Your task to perform on an android device: see tabs open on other devices in the chrome app Image 0: 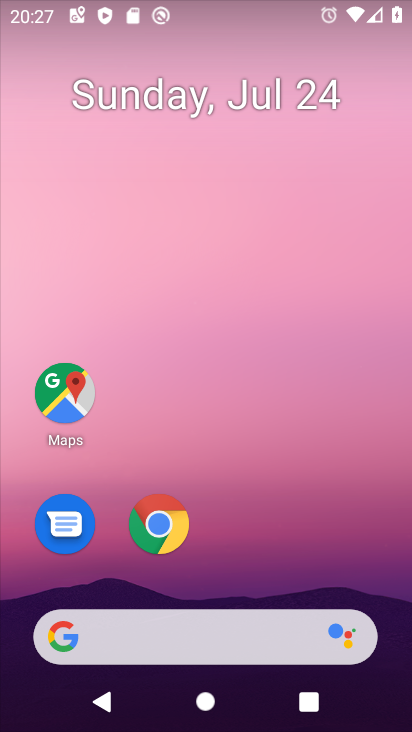
Step 0: drag from (254, 561) to (241, 524)
Your task to perform on an android device: see tabs open on other devices in the chrome app Image 1: 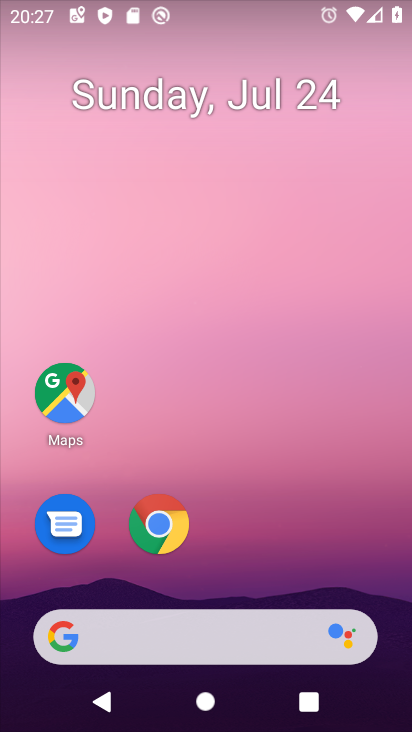
Step 1: click (172, 532)
Your task to perform on an android device: see tabs open on other devices in the chrome app Image 2: 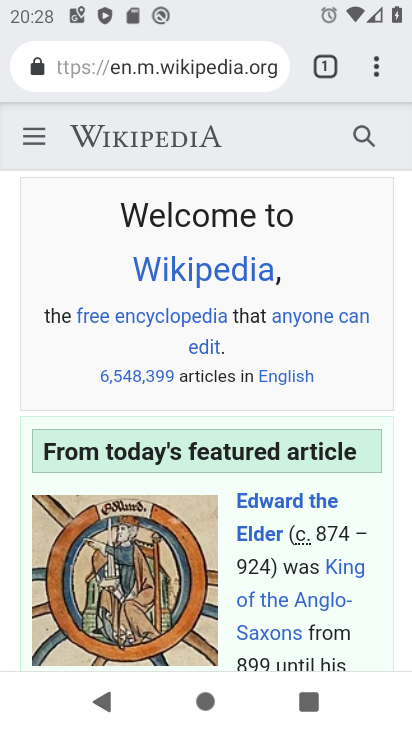
Step 2: press back button
Your task to perform on an android device: see tabs open on other devices in the chrome app Image 3: 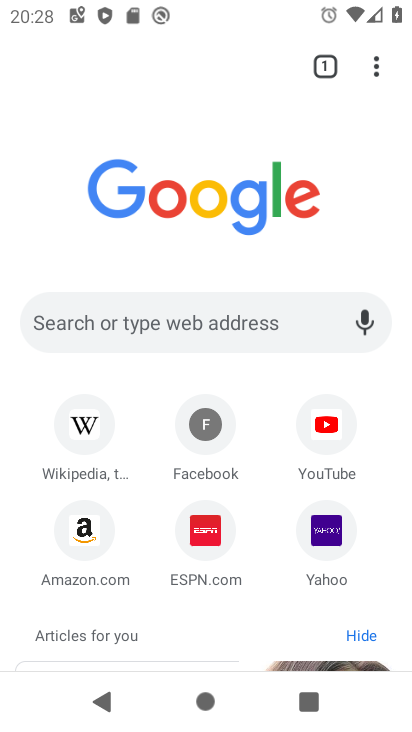
Step 3: click (377, 75)
Your task to perform on an android device: see tabs open on other devices in the chrome app Image 4: 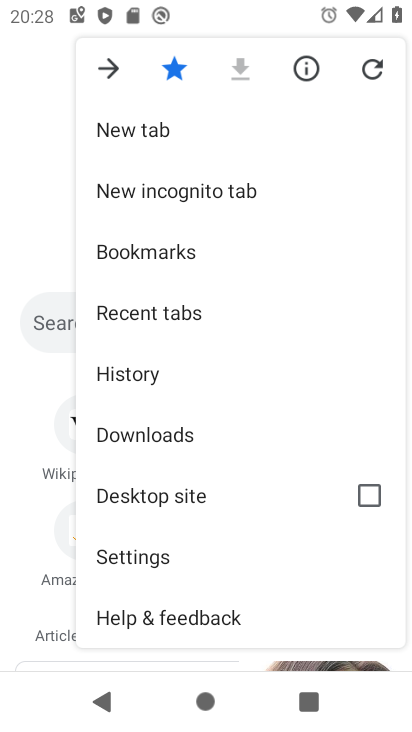
Step 4: click (183, 308)
Your task to perform on an android device: see tabs open on other devices in the chrome app Image 5: 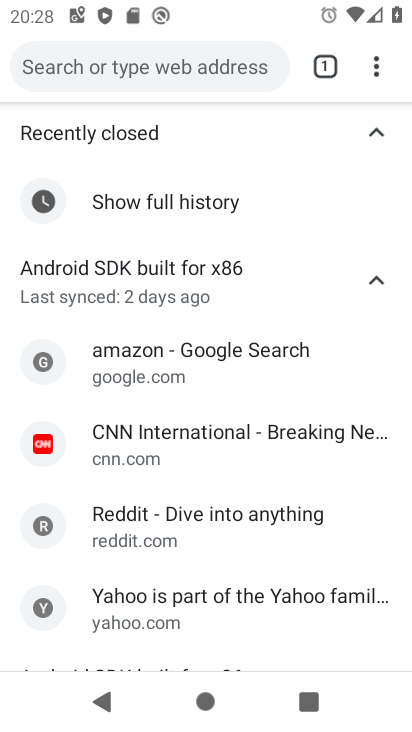
Step 5: task complete